Your task to perform on an android device: Go to Yahoo.com Image 0: 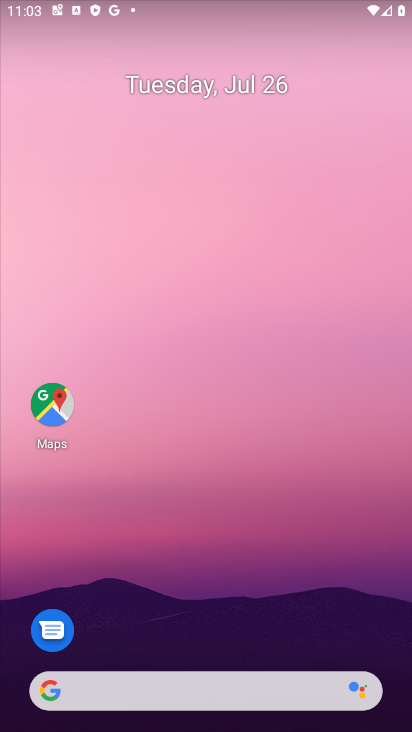
Step 0: drag from (202, 485) to (354, 42)
Your task to perform on an android device: Go to Yahoo.com Image 1: 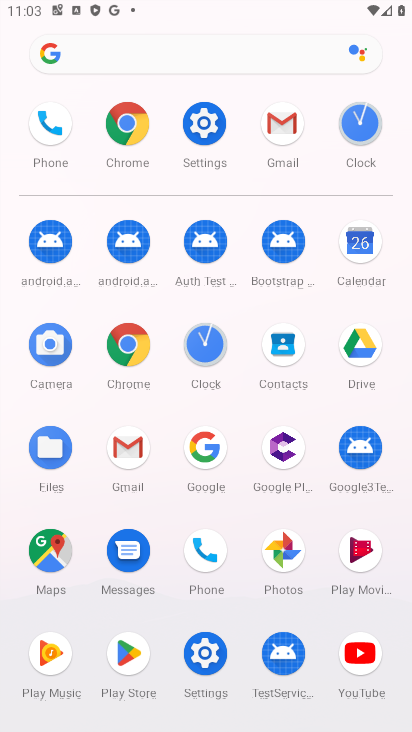
Step 1: click (132, 145)
Your task to perform on an android device: Go to Yahoo.com Image 2: 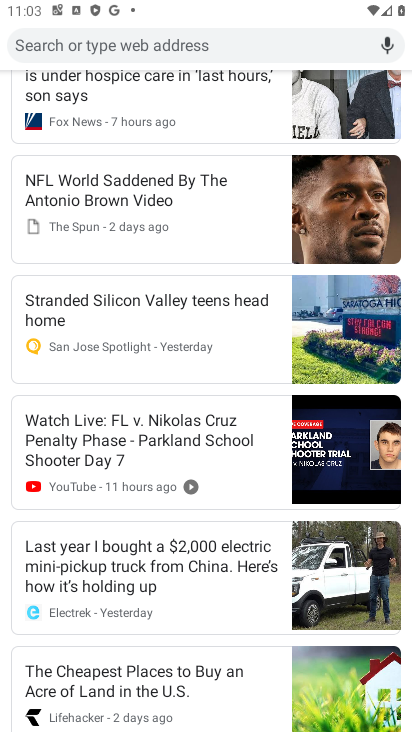
Step 2: drag from (124, 145) to (98, 539)
Your task to perform on an android device: Go to Yahoo.com Image 3: 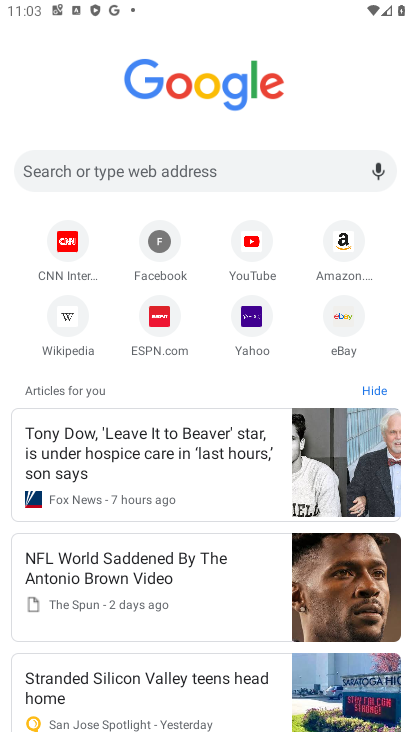
Step 3: click (256, 312)
Your task to perform on an android device: Go to Yahoo.com Image 4: 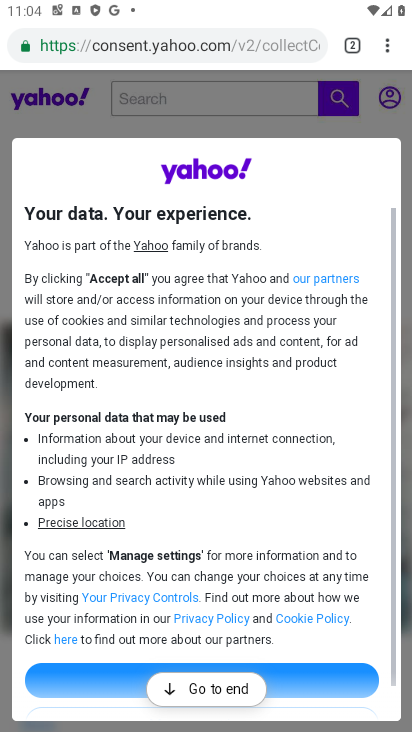
Step 4: task complete